Your task to perform on an android device: open app "The Home Depot" (install if not already installed) Image 0: 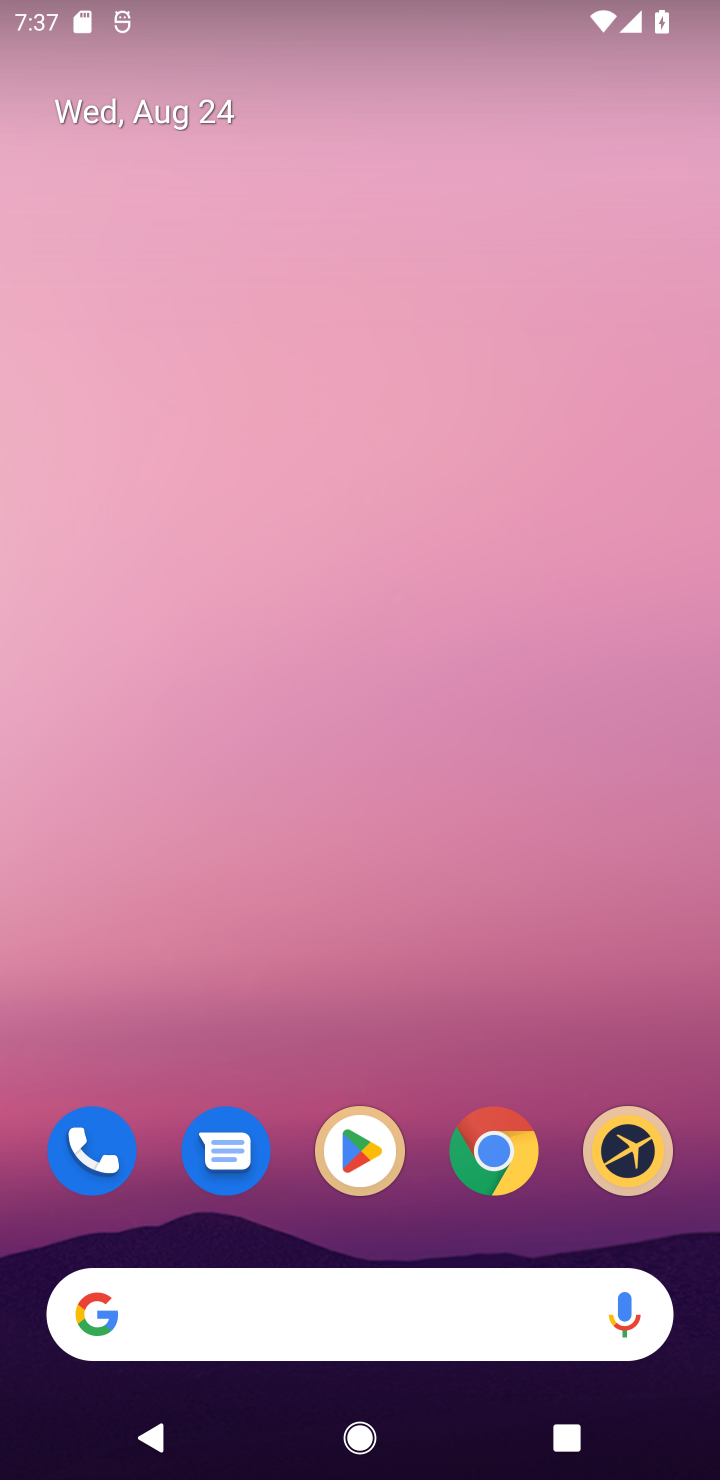
Step 0: click (364, 1151)
Your task to perform on an android device: open app "The Home Depot" (install if not already installed) Image 1: 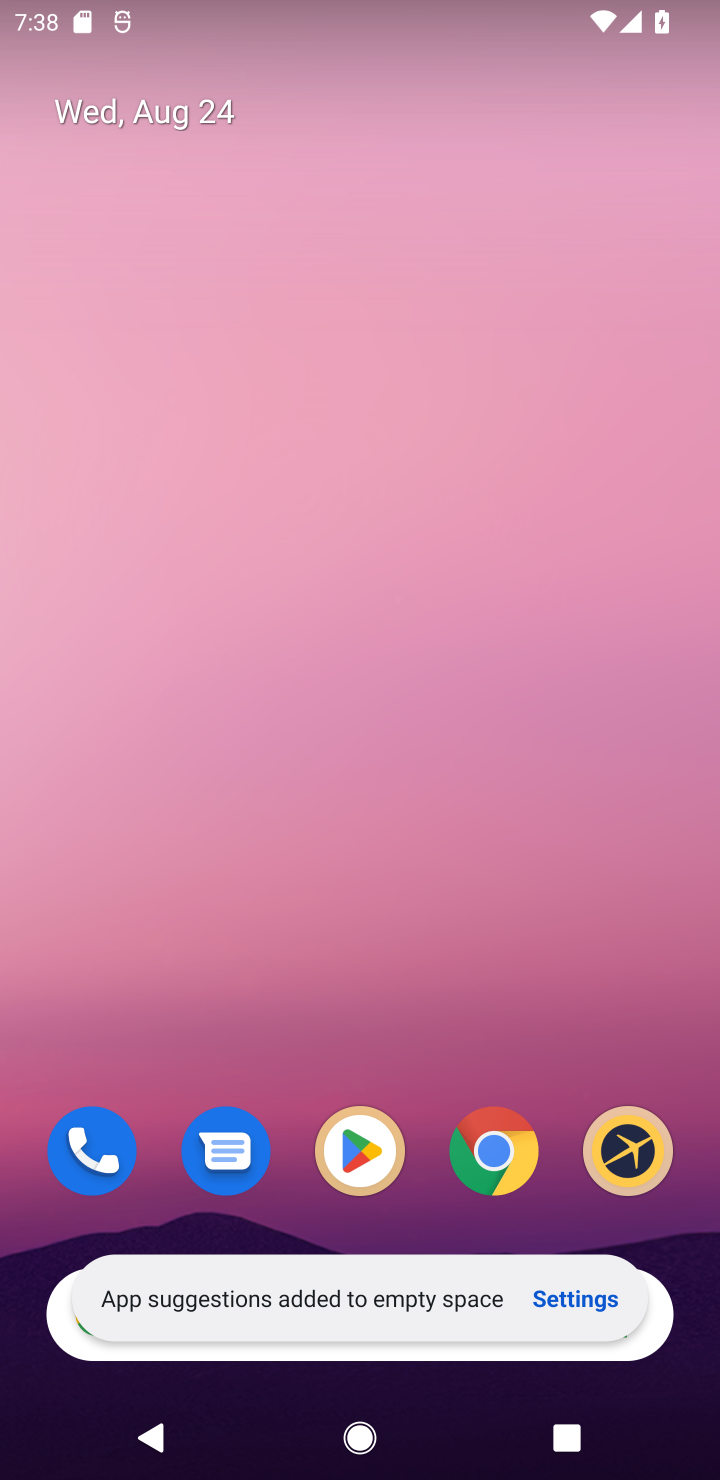
Step 1: click (364, 1151)
Your task to perform on an android device: open app "The Home Depot" (install if not already installed) Image 2: 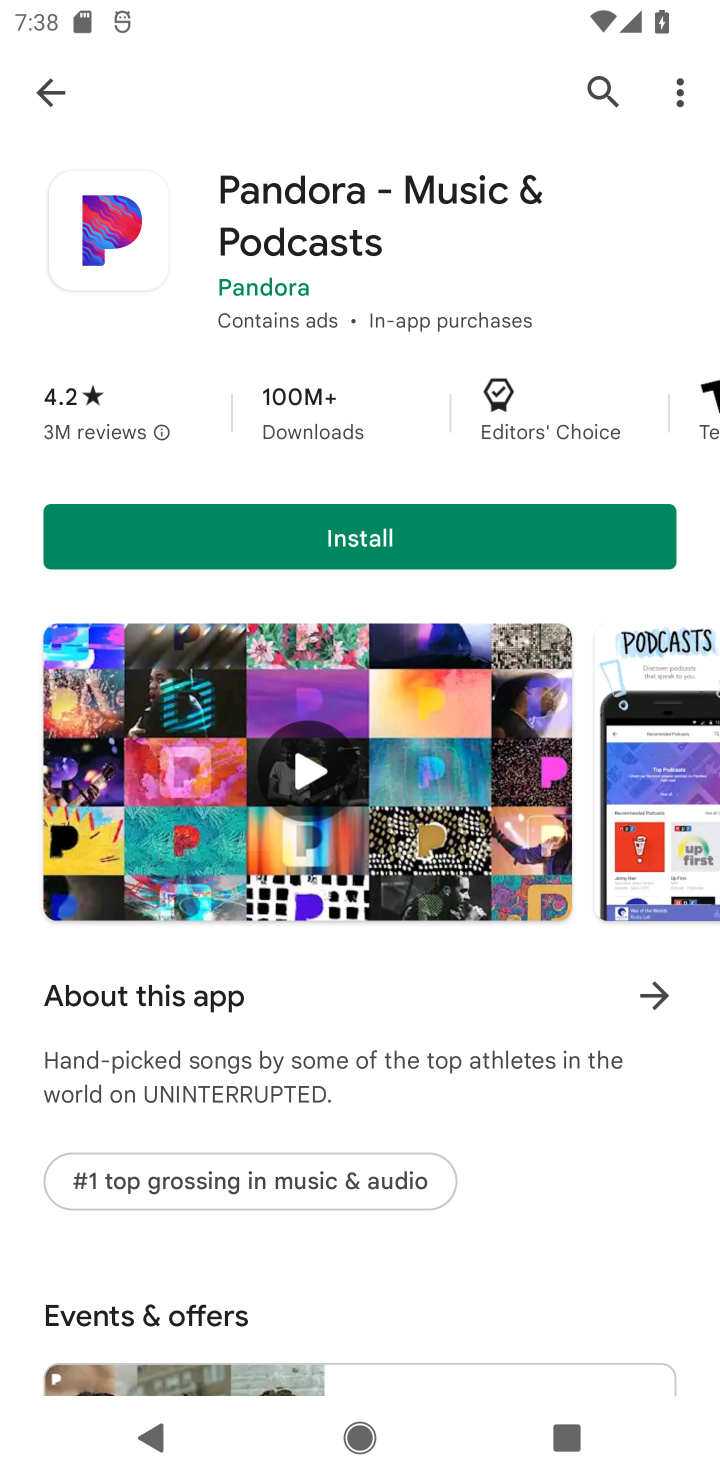
Step 2: click (592, 74)
Your task to perform on an android device: open app "The Home Depot" (install if not already installed) Image 3: 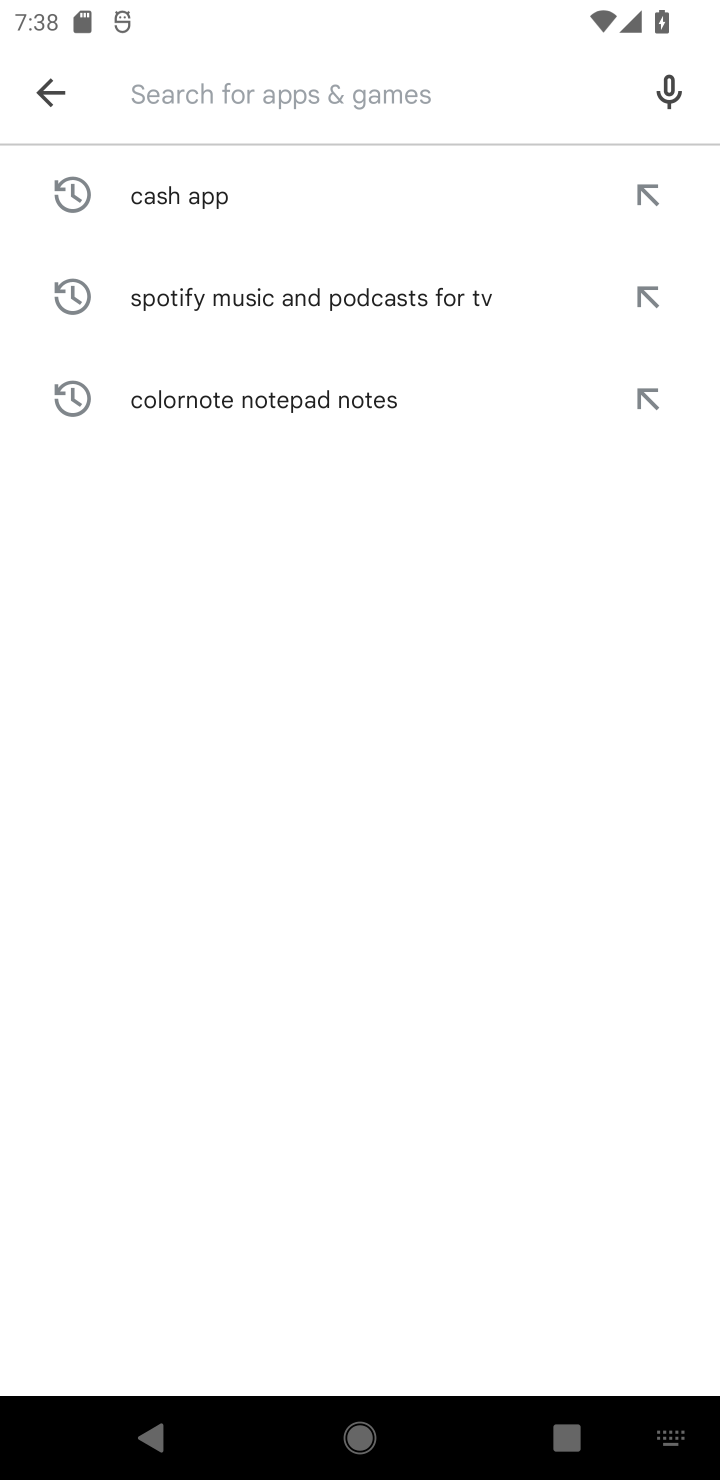
Step 3: type "The Home Depot"
Your task to perform on an android device: open app "The Home Depot" (install if not already installed) Image 4: 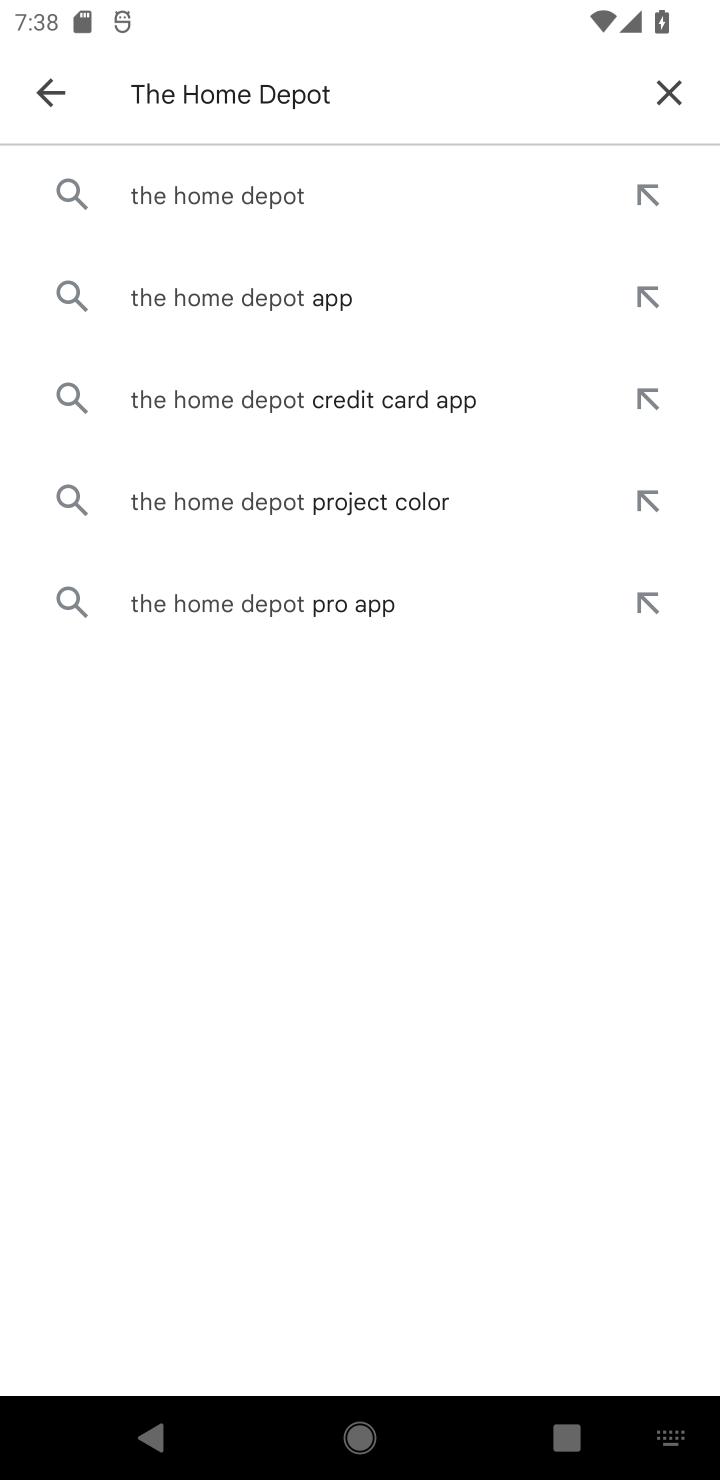
Step 4: click (254, 195)
Your task to perform on an android device: open app "The Home Depot" (install if not already installed) Image 5: 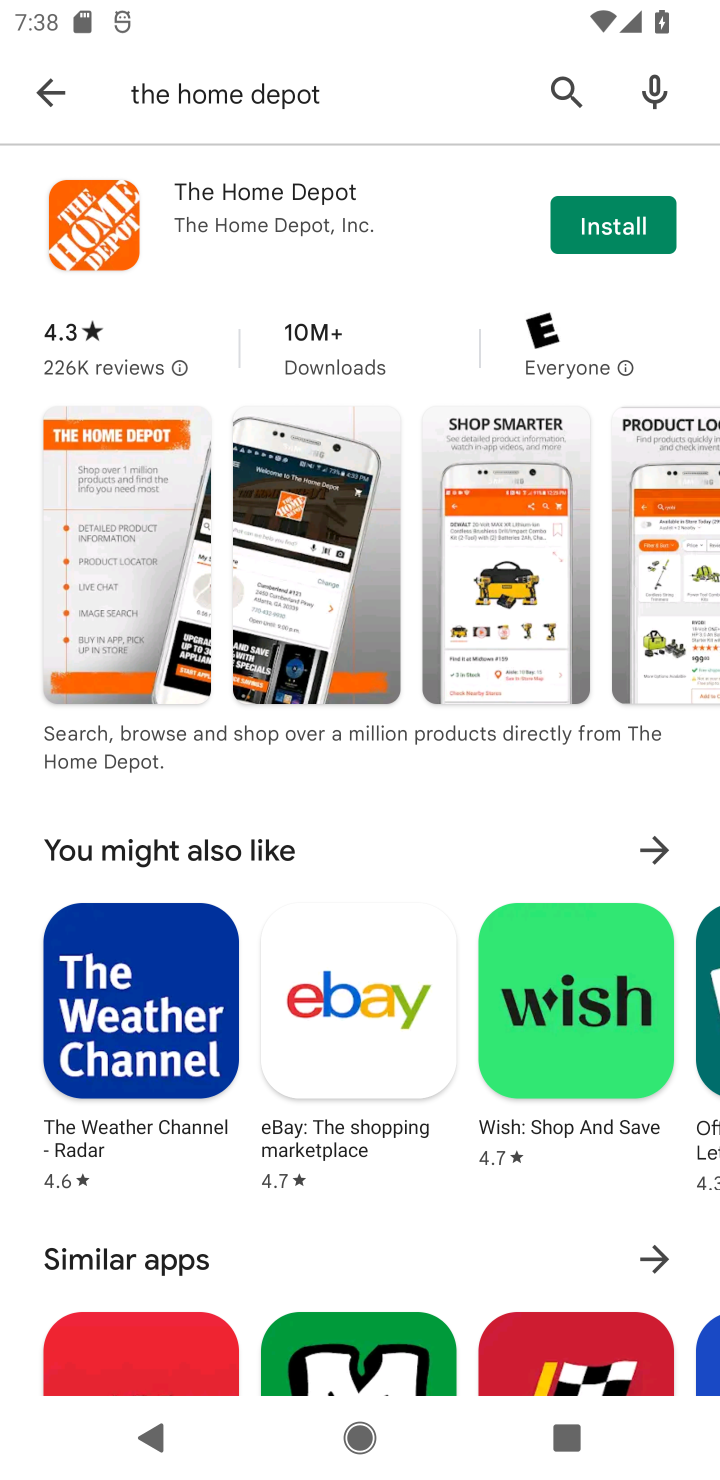
Step 5: click (215, 196)
Your task to perform on an android device: open app "The Home Depot" (install if not already installed) Image 6: 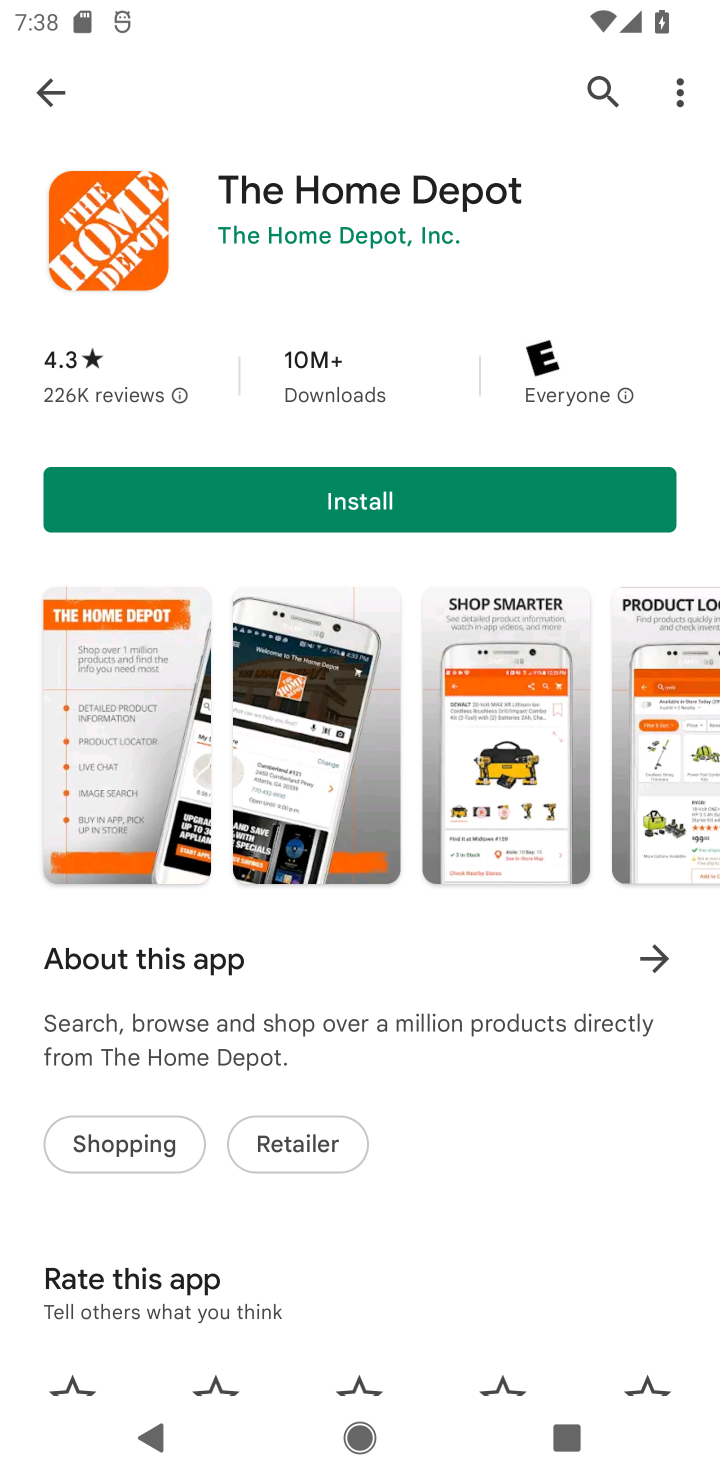
Step 6: click (356, 499)
Your task to perform on an android device: open app "The Home Depot" (install if not already installed) Image 7: 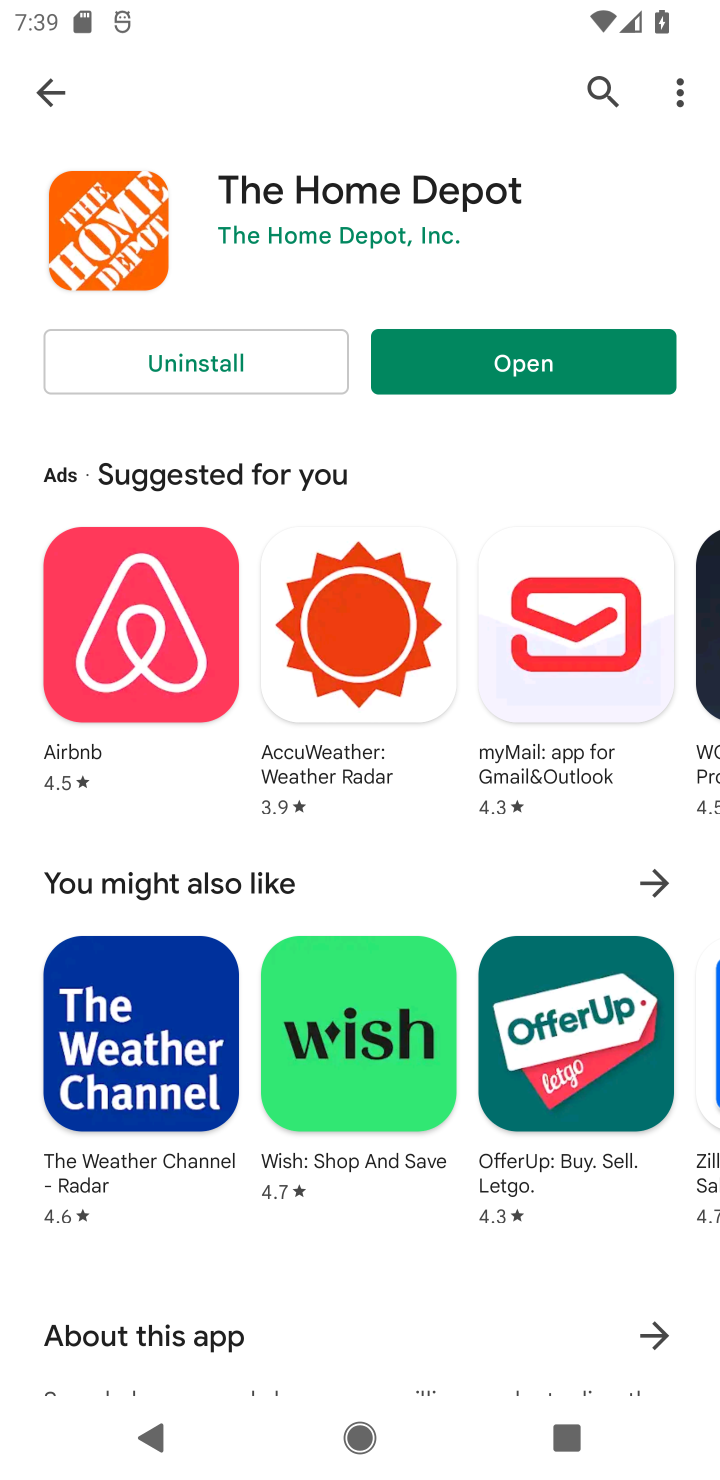
Step 7: click (515, 357)
Your task to perform on an android device: open app "The Home Depot" (install if not already installed) Image 8: 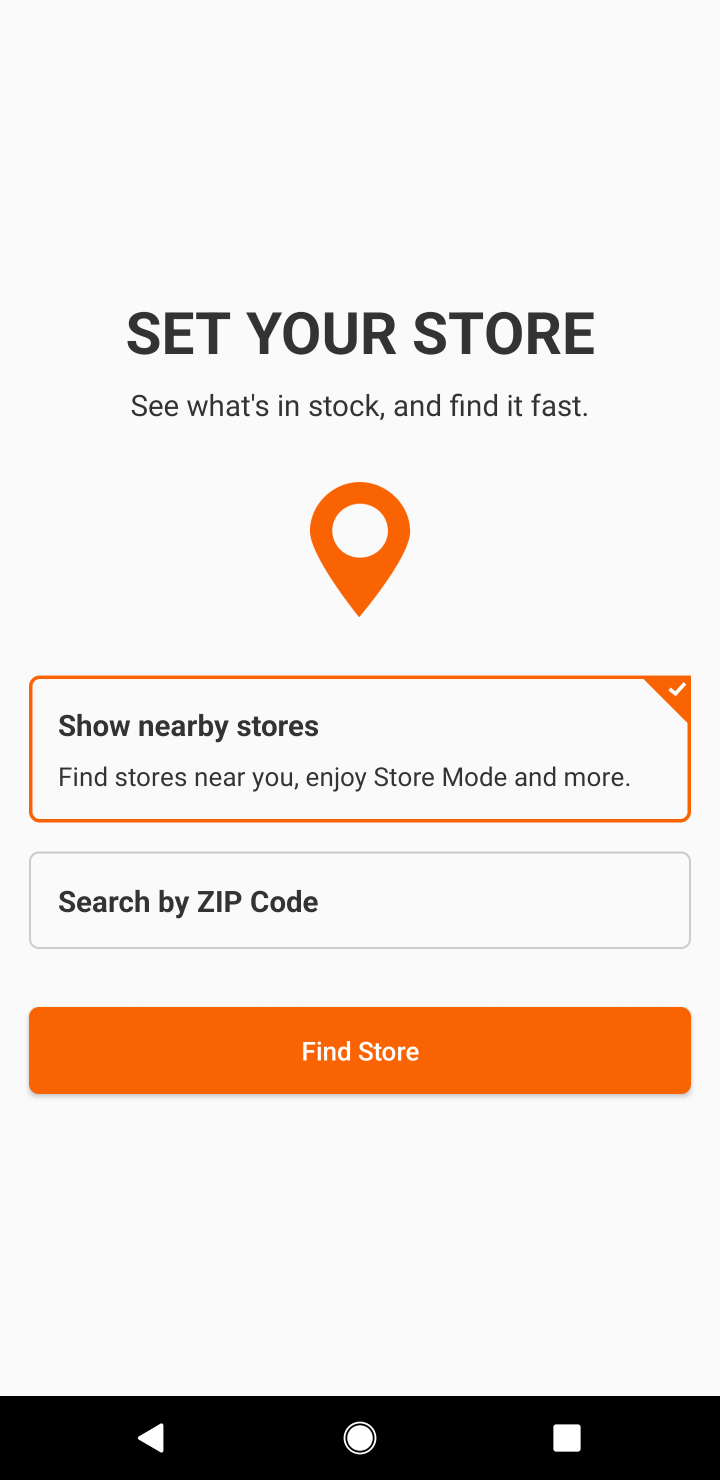
Step 8: task complete